Your task to perform on an android device: open sync settings in chrome Image 0: 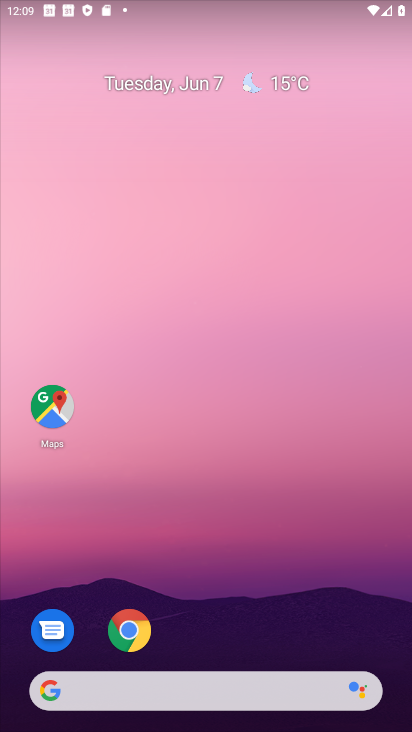
Step 0: drag from (301, 575) to (300, 129)
Your task to perform on an android device: open sync settings in chrome Image 1: 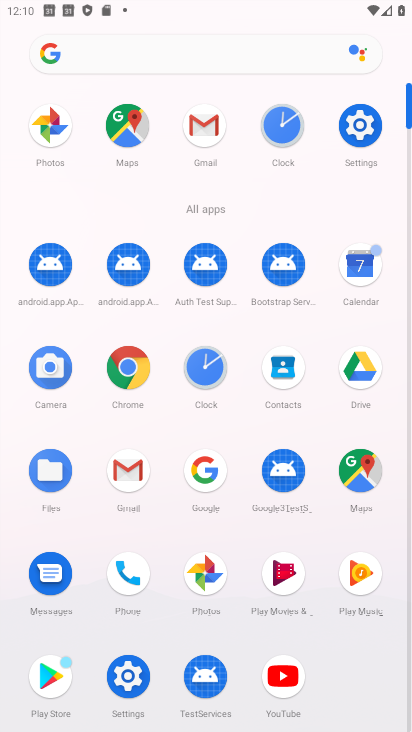
Step 1: click (124, 386)
Your task to perform on an android device: open sync settings in chrome Image 2: 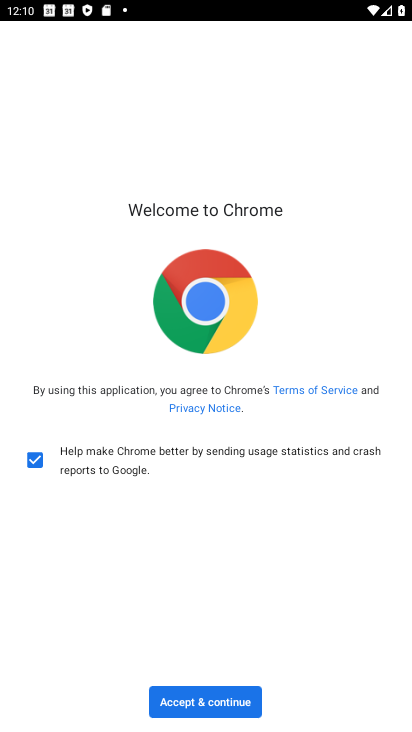
Step 2: click (212, 697)
Your task to perform on an android device: open sync settings in chrome Image 3: 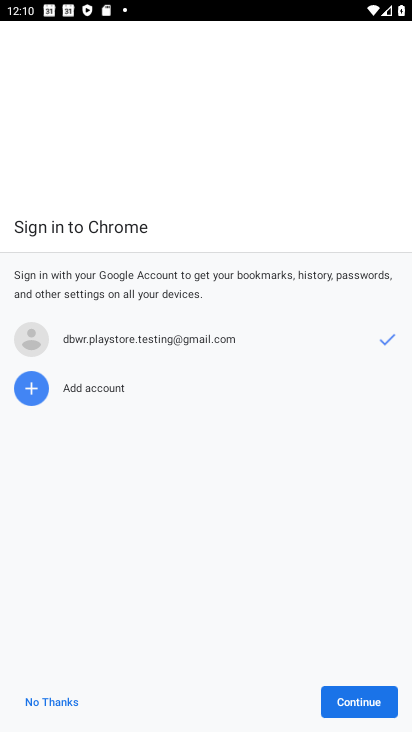
Step 3: click (342, 698)
Your task to perform on an android device: open sync settings in chrome Image 4: 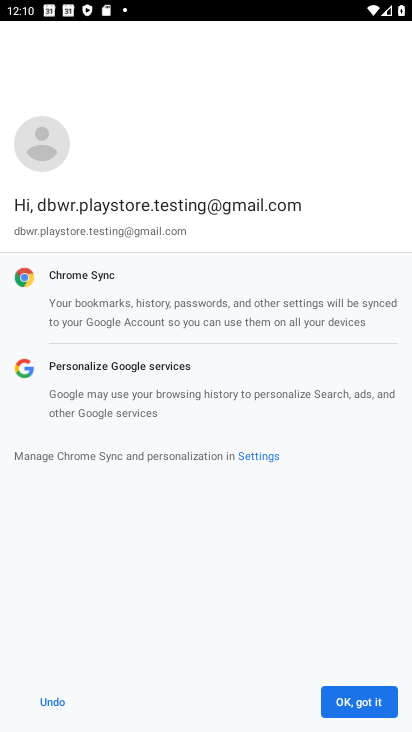
Step 4: click (346, 705)
Your task to perform on an android device: open sync settings in chrome Image 5: 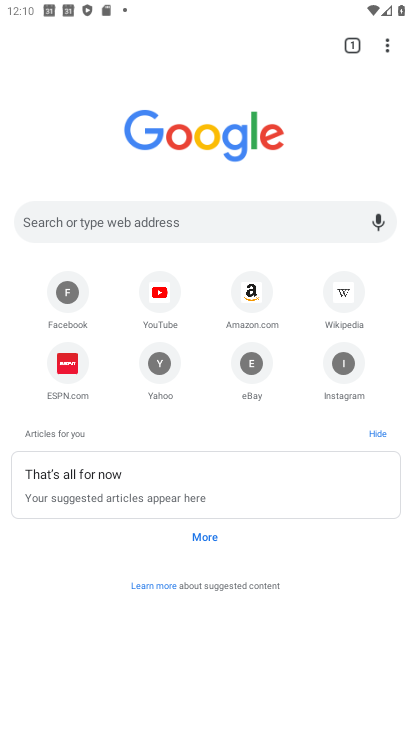
Step 5: drag from (390, 55) to (286, 373)
Your task to perform on an android device: open sync settings in chrome Image 6: 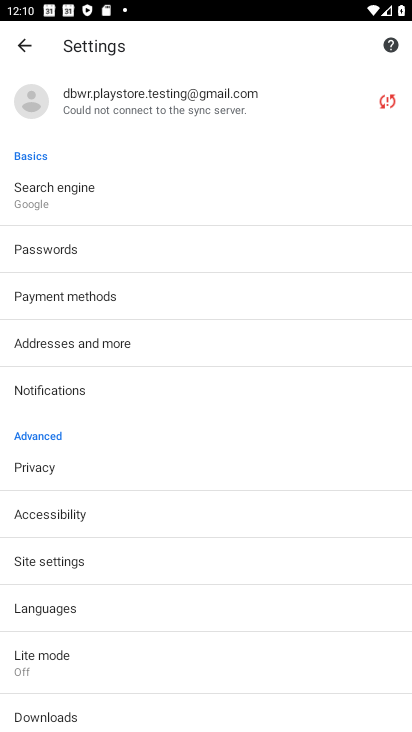
Step 6: drag from (240, 622) to (271, 259)
Your task to perform on an android device: open sync settings in chrome Image 7: 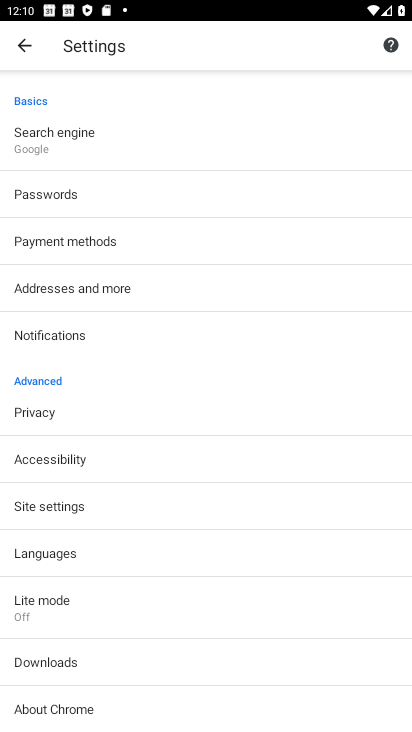
Step 7: click (164, 501)
Your task to perform on an android device: open sync settings in chrome Image 8: 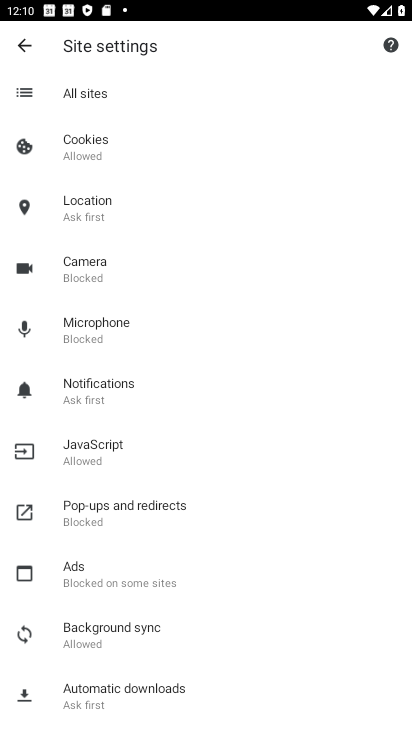
Step 8: click (196, 630)
Your task to perform on an android device: open sync settings in chrome Image 9: 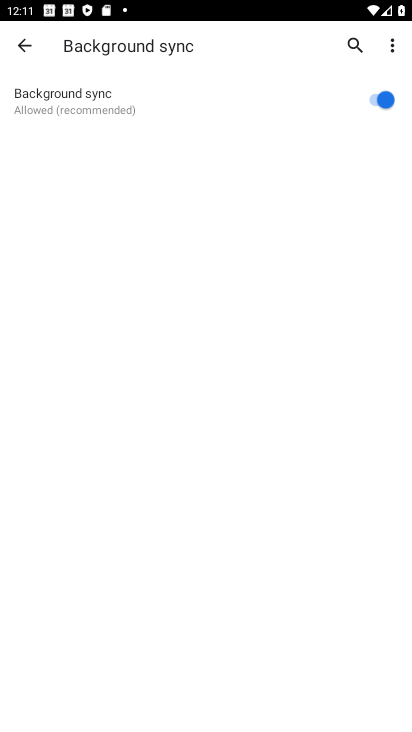
Step 9: task complete